Your task to perform on an android device: check data usage Image 0: 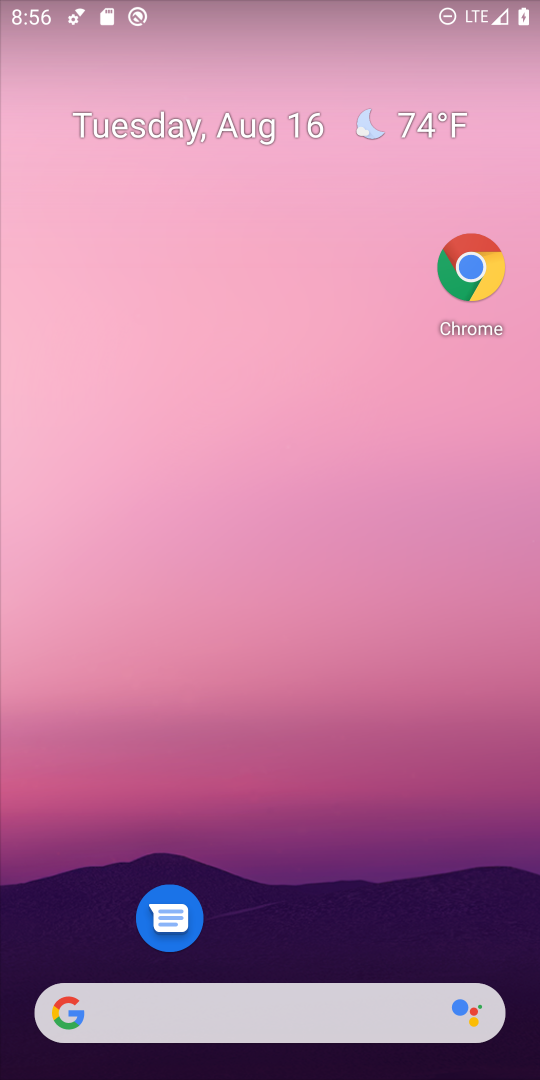
Step 0: drag from (312, 949) to (247, 3)
Your task to perform on an android device: check data usage Image 1: 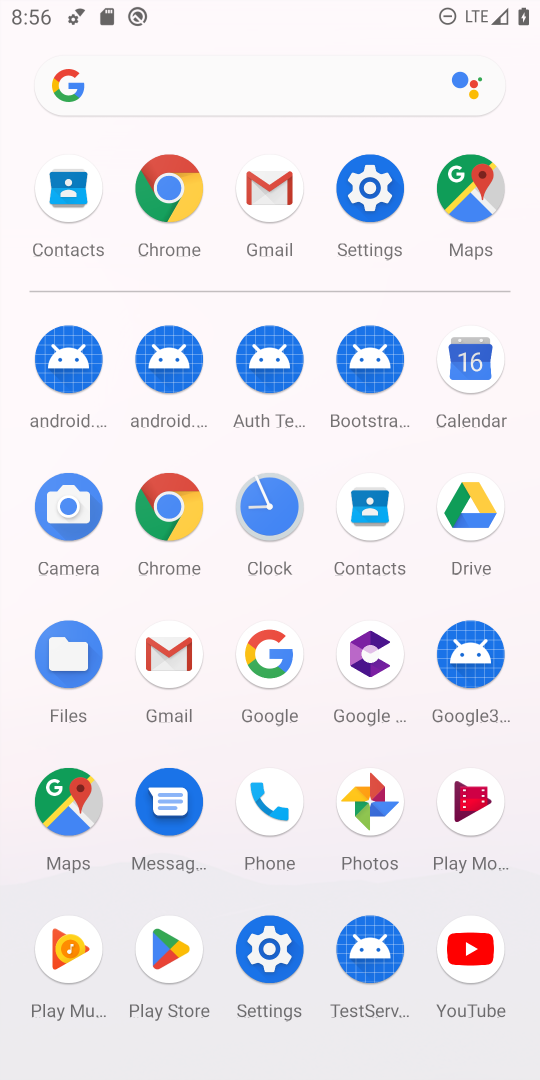
Step 1: click (368, 235)
Your task to perform on an android device: check data usage Image 2: 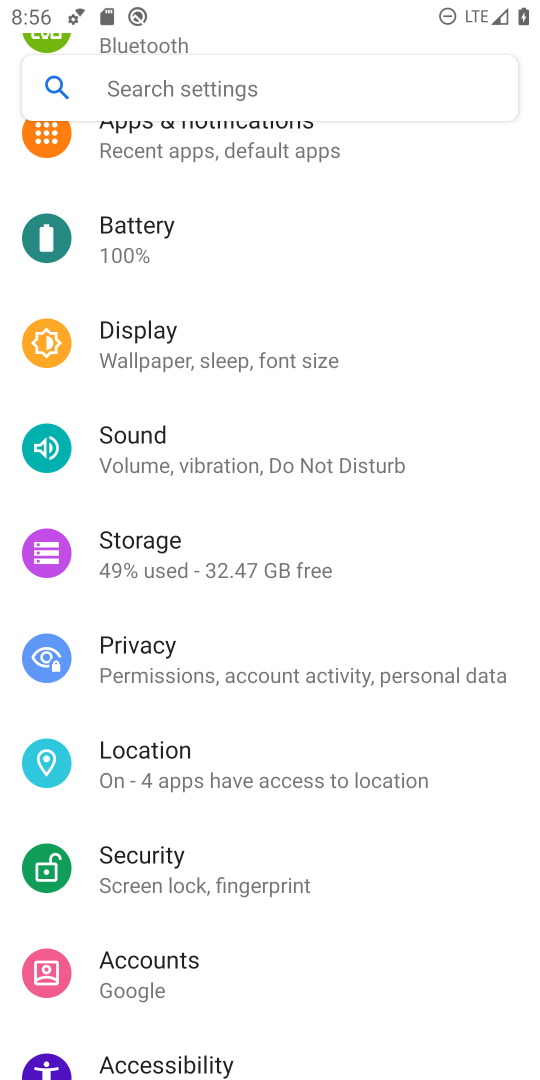
Step 2: drag from (218, 298) to (239, 735)
Your task to perform on an android device: check data usage Image 3: 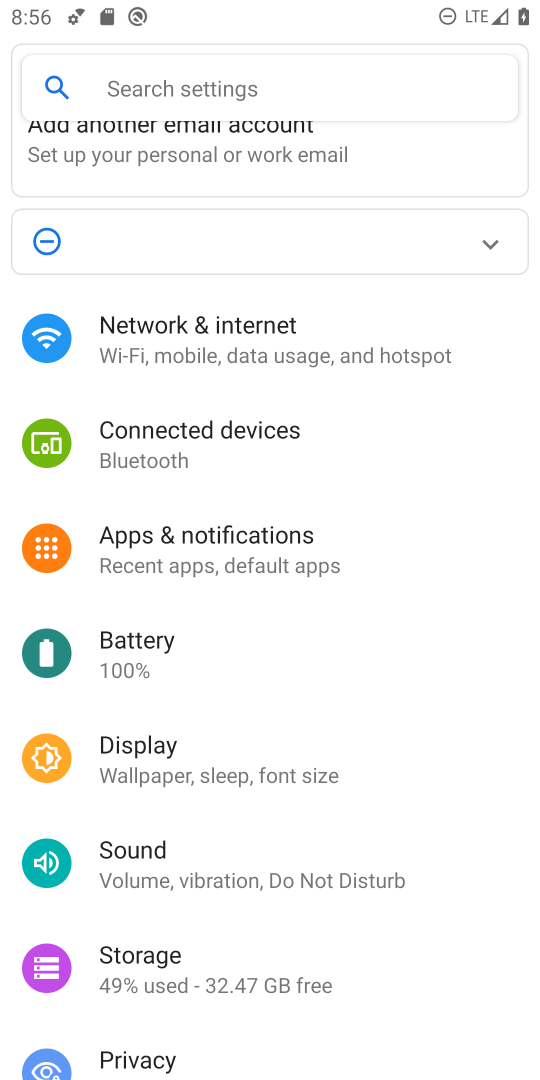
Step 3: click (321, 360)
Your task to perform on an android device: check data usage Image 4: 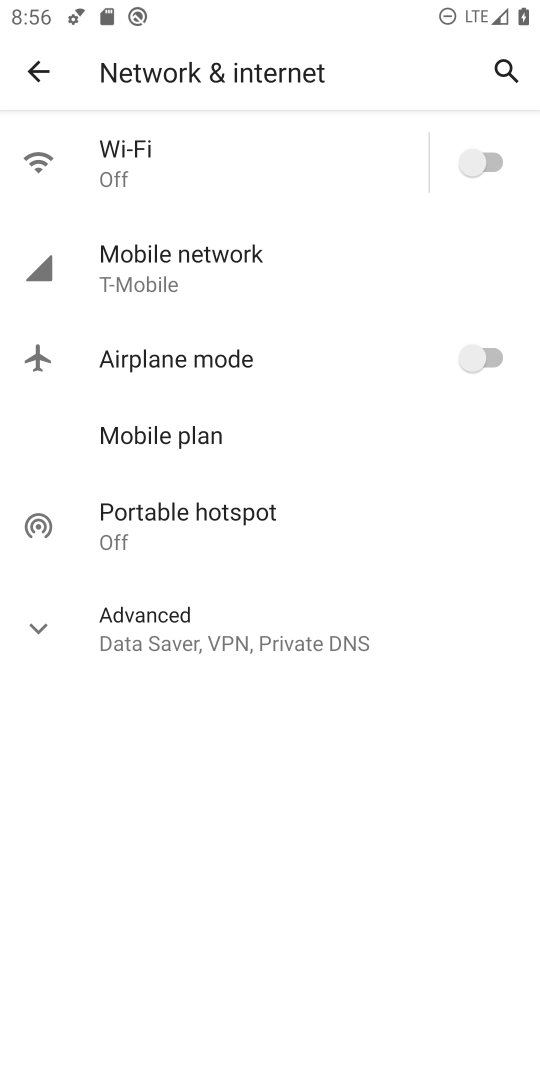
Step 4: click (244, 287)
Your task to perform on an android device: check data usage Image 5: 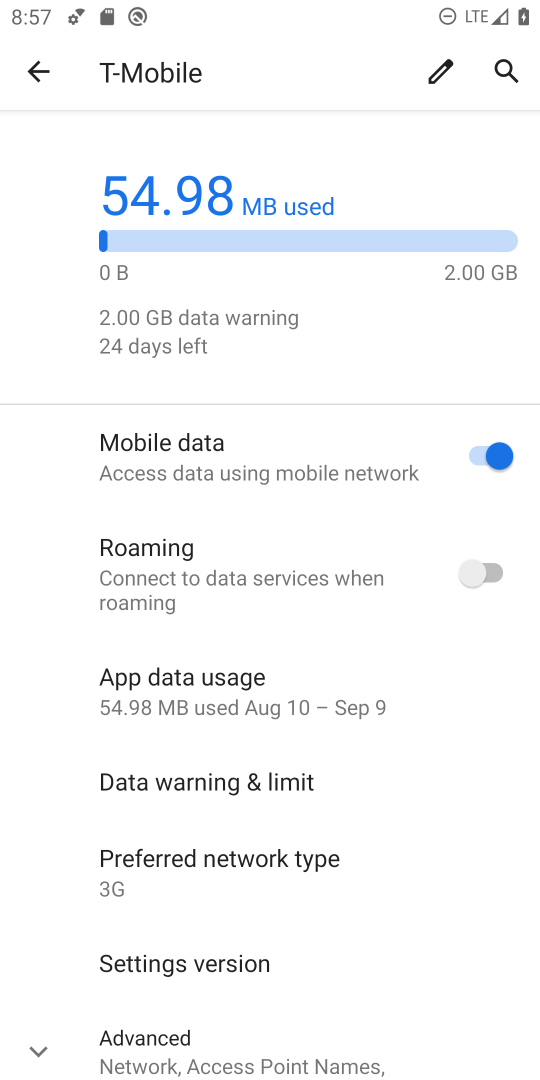
Step 5: click (233, 688)
Your task to perform on an android device: check data usage Image 6: 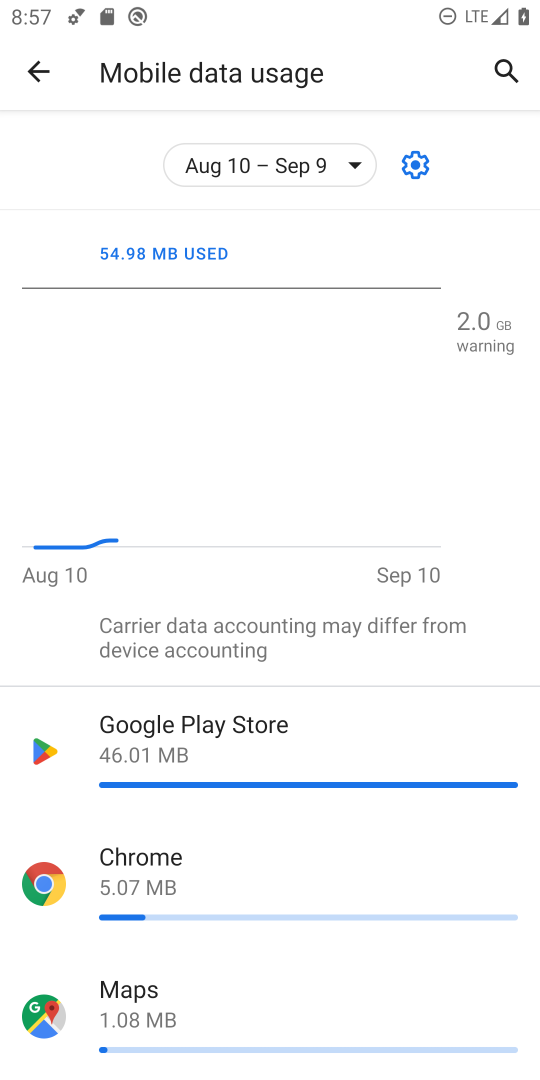
Step 6: task complete